Your task to perform on an android device: Open the phone app and click the voicemail tab. Image 0: 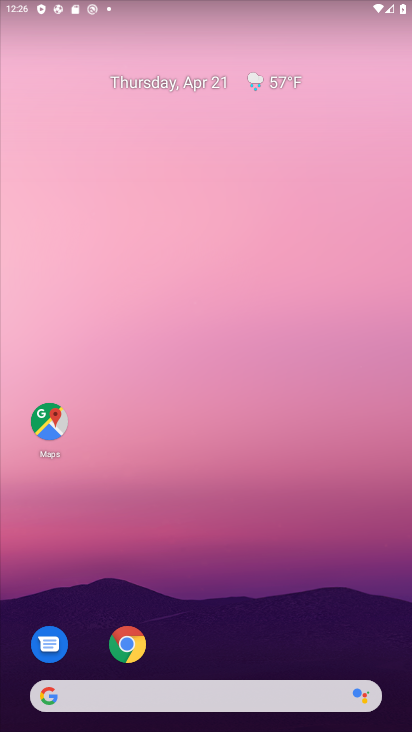
Step 0: drag from (203, 674) to (194, 1)
Your task to perform on an android device: Open the phone app and click the voicemail tab. Image 1: 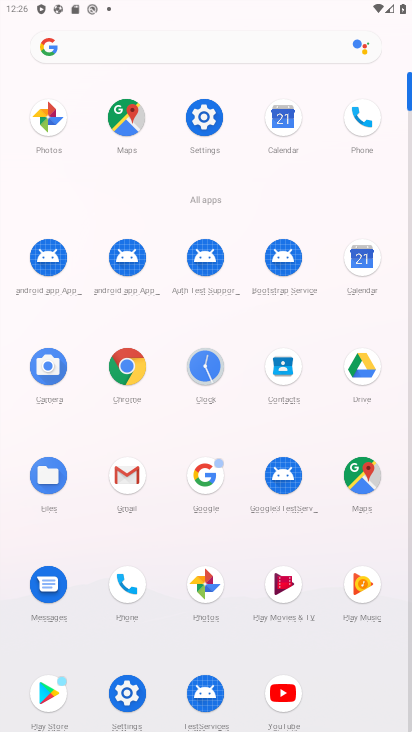
Step 1: click (127, 576)
Your task to perform on an android device: Open the phone app and click the voicemail tab. Image 2: 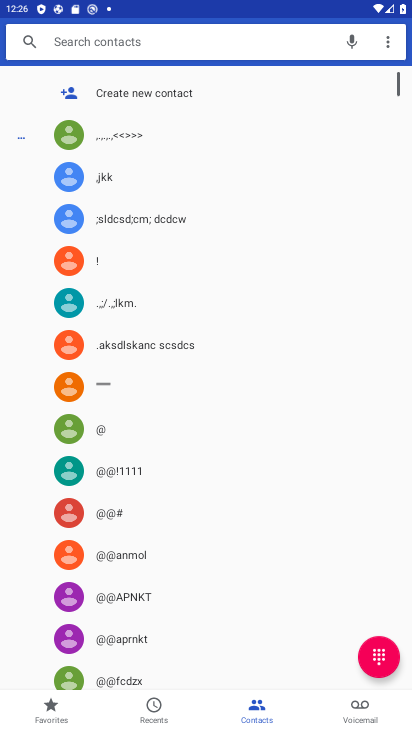
Step 2: click (361, 701)
Your task to perform on an android device: Open the phone app and click the voicemail tab. Image 3: 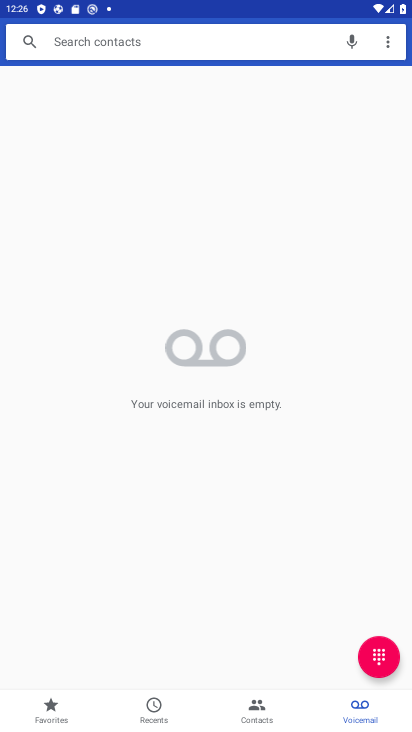
Step 3: task complete